Your task to perform on an android device: empty trash in the gmail app Image 0: 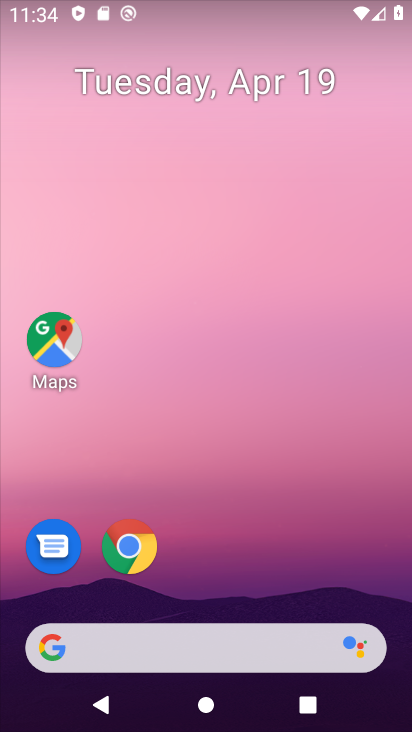
Step 0: drag from (398, 562) to (345, 29)
Your task to perform on an android device: empty trash in the gmail app Image 1: 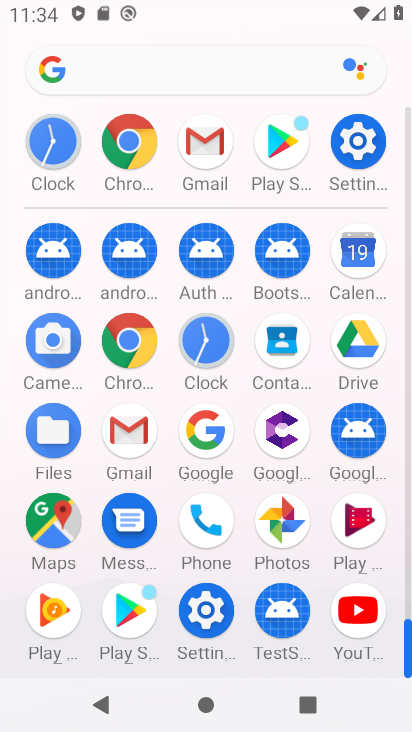
Step 1: click (130, 425)
Your task to perform on an android device: empty trash in the gmail app Image 2: 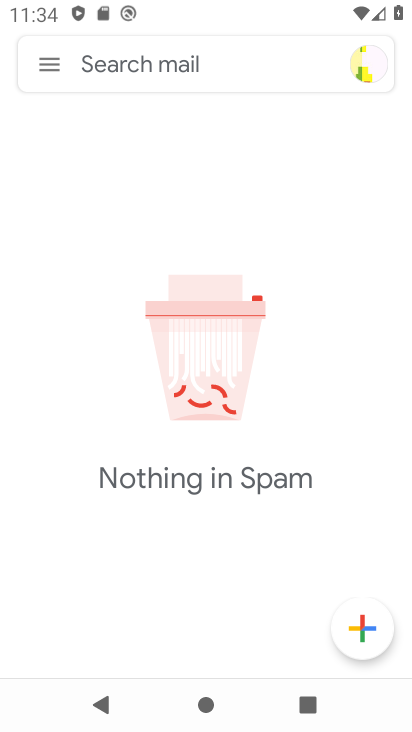
Step 2: click (41, 64)
Your task to perform on an android device: empty trash in the gmail app Image 3: 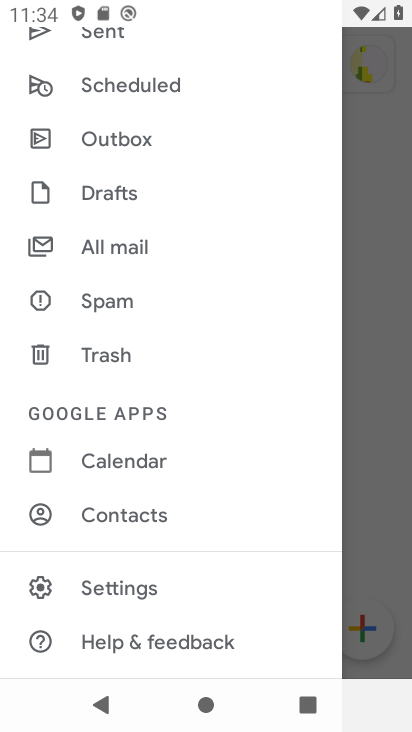
Step 3: click (101, 363)
Your task to perform on an android device: empty trash in the gmail app Image 4: 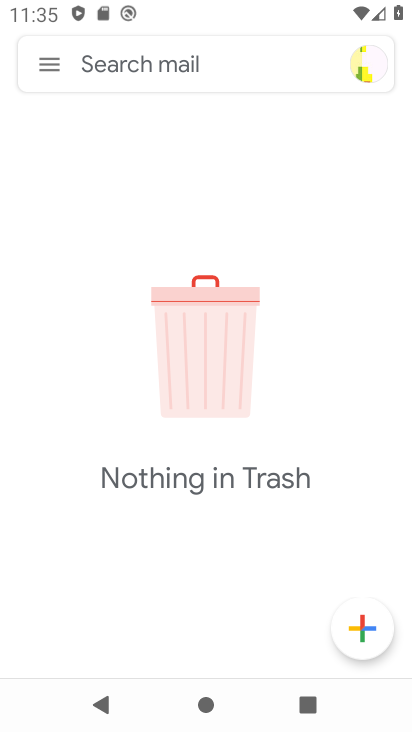
Step 4: task complete